Your task to perform on an android device: Search for Italian restaurants on Maps Image 0: 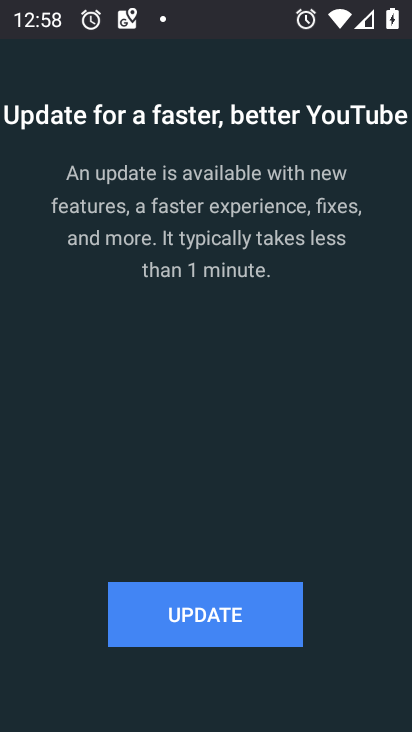
Step 0: press home button
Your task to perform on an android device: Search for Italian restaurants on Maps Image 1: 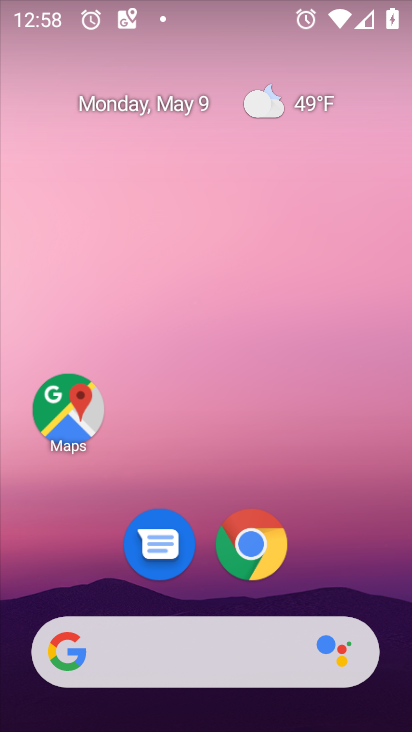
Step 1: click (84, 393)
Your task to perform on an android device: Search for Italian restaurants on Maps Image 2: 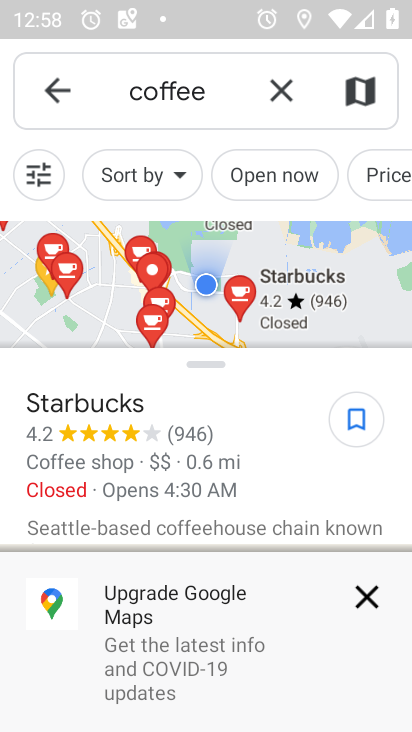
Step 2: click (269, 94)
Your task to perform on an android device: Search for Italian restaurants on Maps Image 3: 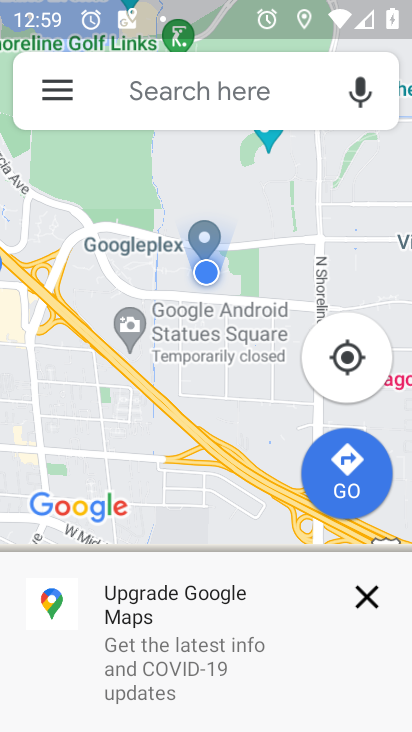
Step 3: click (240, 98)
Your task to perform on an android device: Search for Italian restaurants on Maps Image 4: 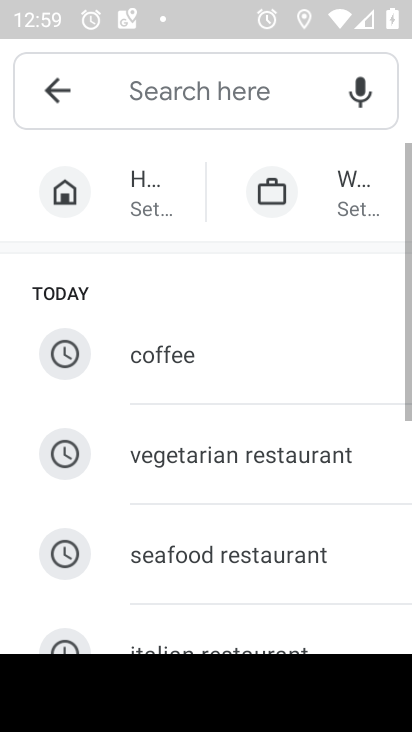
Step 4: drag from (231, 496) to (204, 258)
Your task to perform on an android device: Search for Italian restaurants on Maps Image 5: 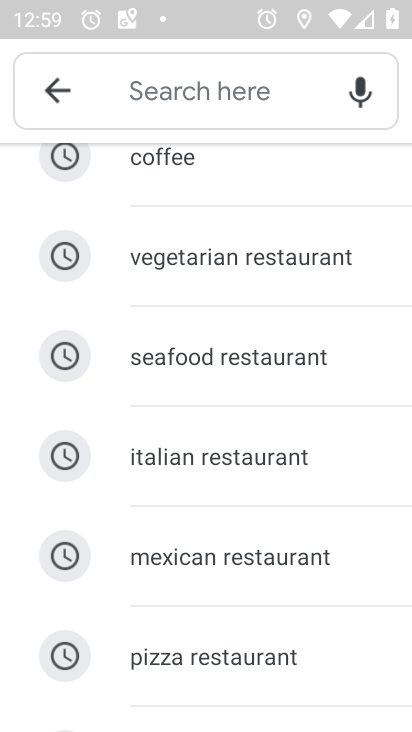
Step 5: click (226, 457)
Your task to perform on an android device: Search for Italian restaurants on Maps Image 6: 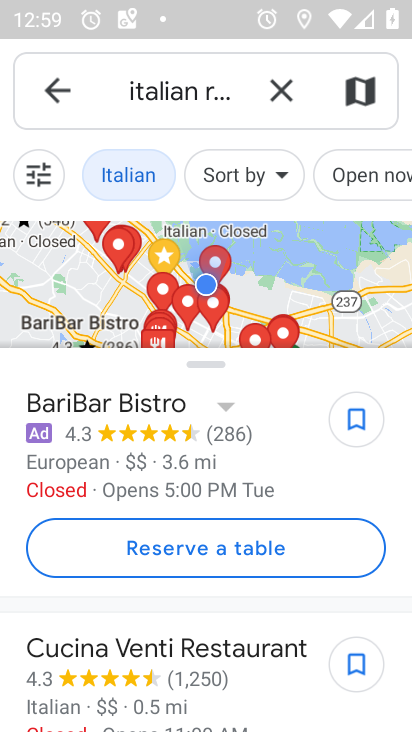
Step 6: task complete